Your task to perform on an android device: turn off location Image 0: 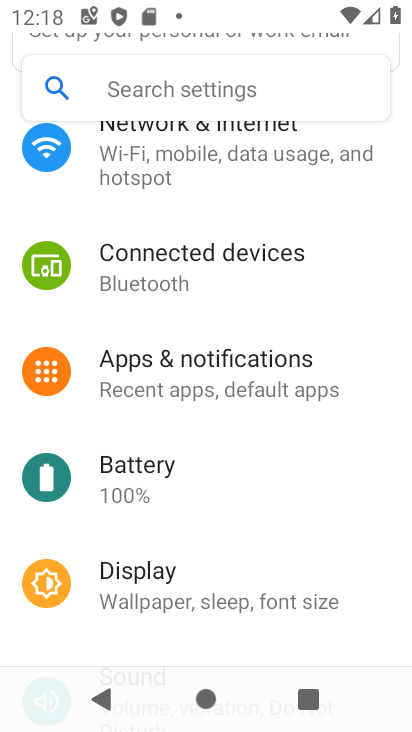
Step 0: drag from (256, 589) to (229, 213)
Your task to perform on an android device: turn off location Image 1: 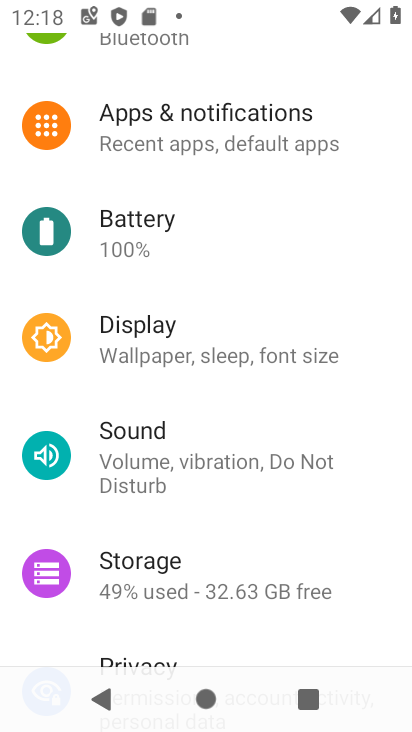
Step 1: drag from (196, 615) to (234, 104)
Your task to perform on an android device: turn off location Image 2: 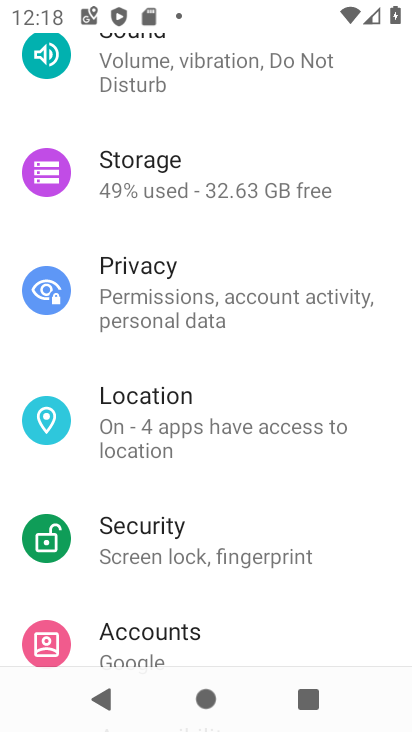
Step 2: click (206, 431)
Your task to perform on an android device: turn off location Image 3: 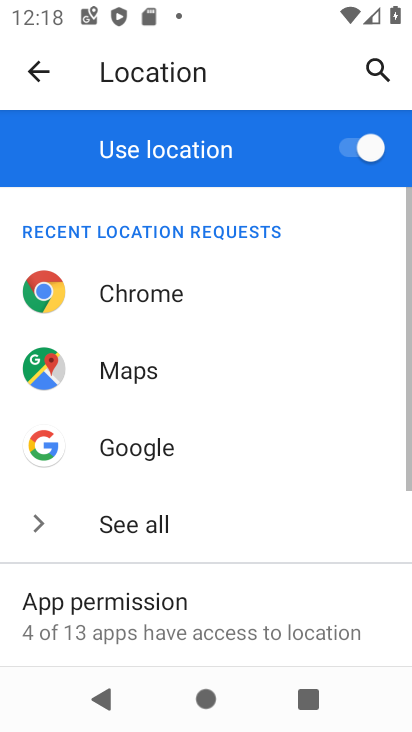
Step 3: click (354, 146)
Your task to perform on an android device: turn off location Image 4: 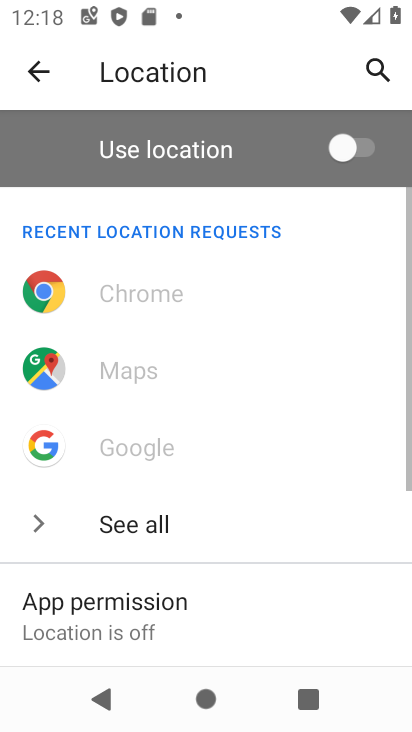
Step 4: task complete